Your task to perform on an android device: clear history in the chrome app Image 0: 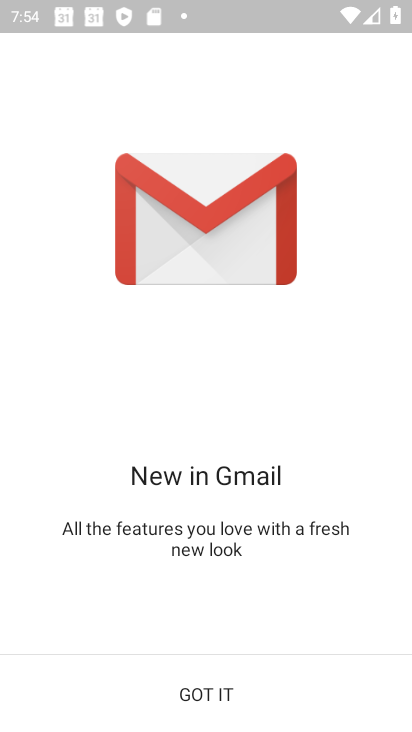
Step 0: press home button
Your task to perform on an android device: clear history in the chrome app Image 1: 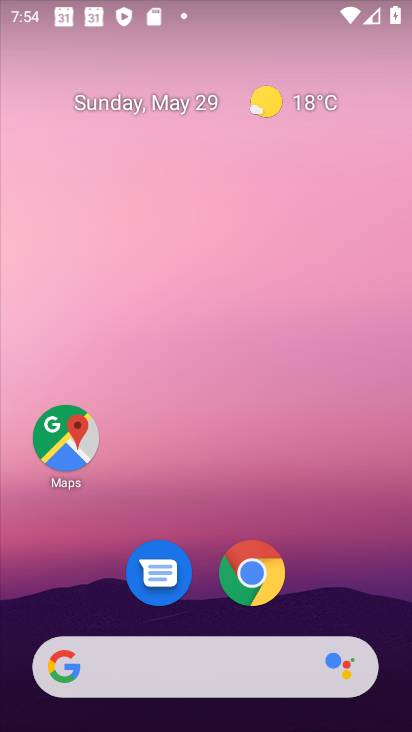
Step 1: click (258, 583)
Your task to perform on an android device: clear history in the chrome app Image 2: 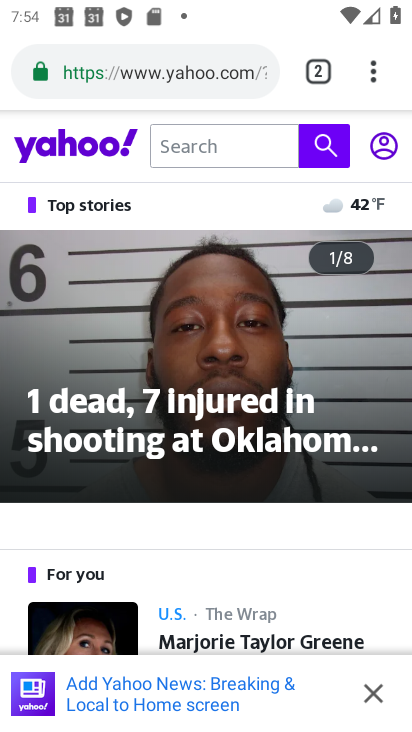
Step 2: drag from (372, 79) to (207, 401)
Your task to perform on an android device: clear history in the chrome app Image 3: 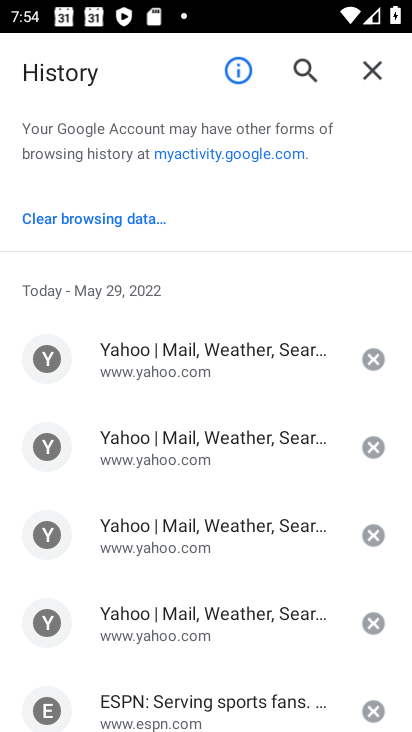
Step 3: click (131, 224)
Your task to perform on an android device: clear history in the chrome app Image 4: 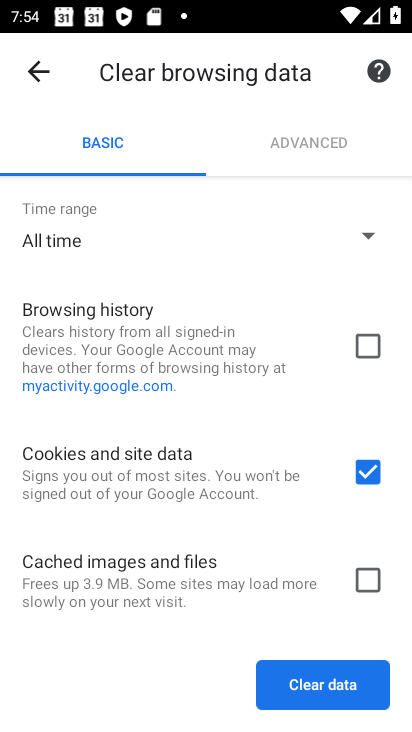
Step 4: click (353, 371)
Your task to perform on an android device: clear history in the chrome app Image 5: 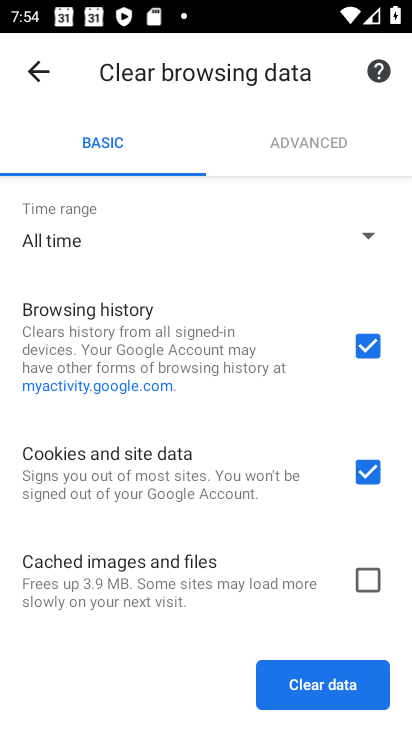
Step 5: click (363, 571)
Your task to perform on an android device: clear history in the chrome app Image 6: 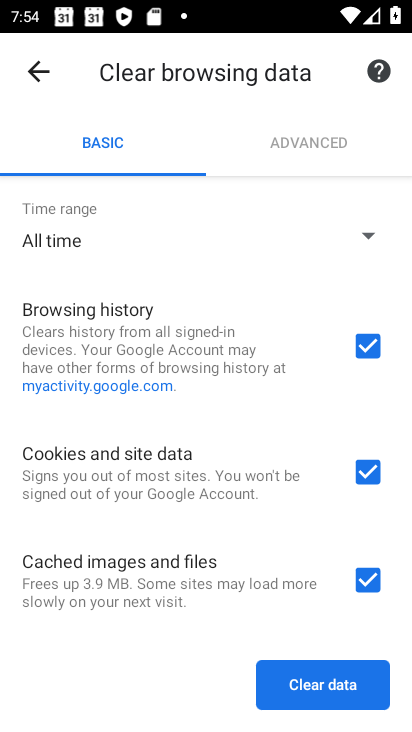
Step 6: drag from (244, 607) to (305, 221)
Your task to perform on an android device: clear history in the chrome app Image 7: 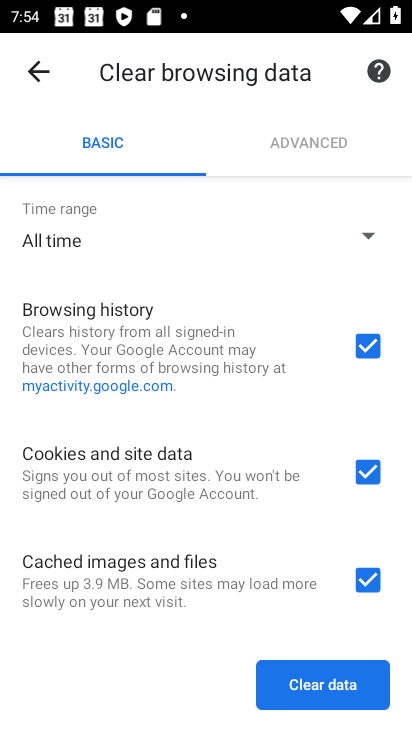
Step 7: click (344, 701)
Your task to perform on an android device: clear history in the chrome app Image 8: 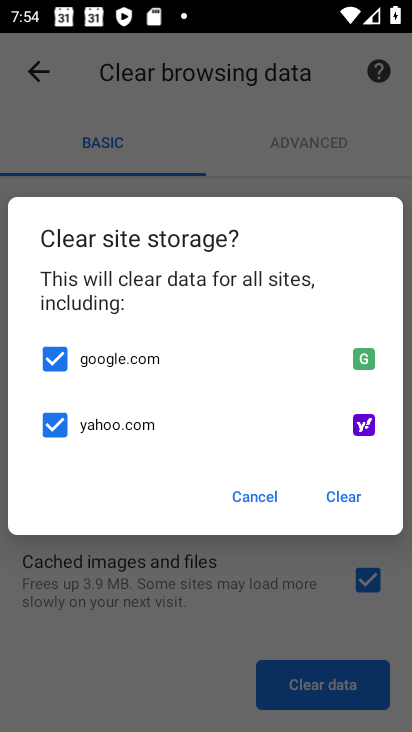
Step 8: click (330, 505)
Your task to perform on an android device: clear history in the chrome app Image 9: 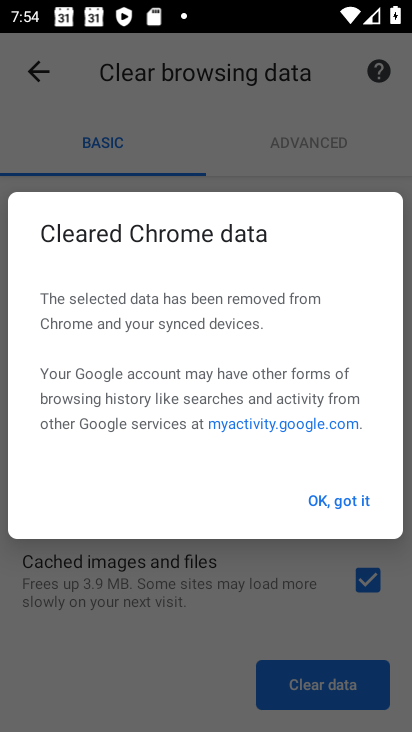
Step 9: click (348, 500)
Your task to perform on an android device: clear history in the chrome app Image 10: 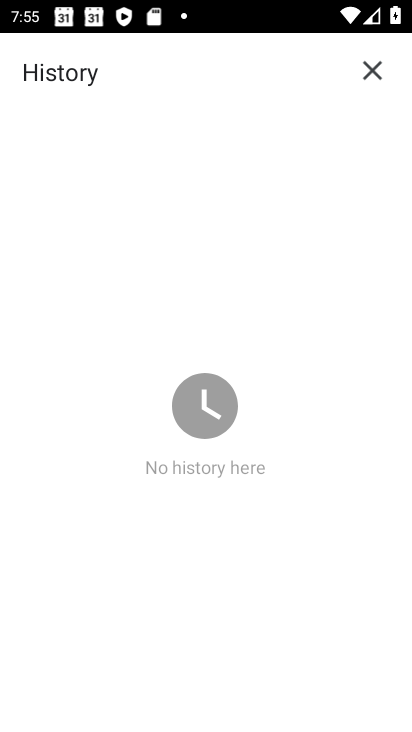
Step 10: task complete